Your task to perform on an android device: Open sound settings Image 0: 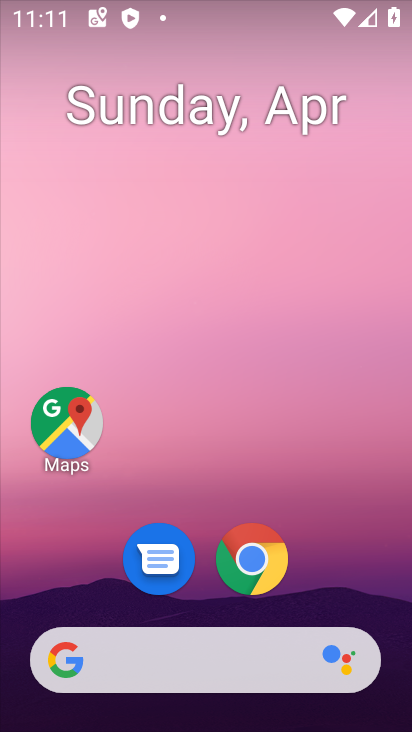
Step 0: drag from (347, 500) to (293, 41)
Your task to perform on an android device: Open sound settings Image 1: 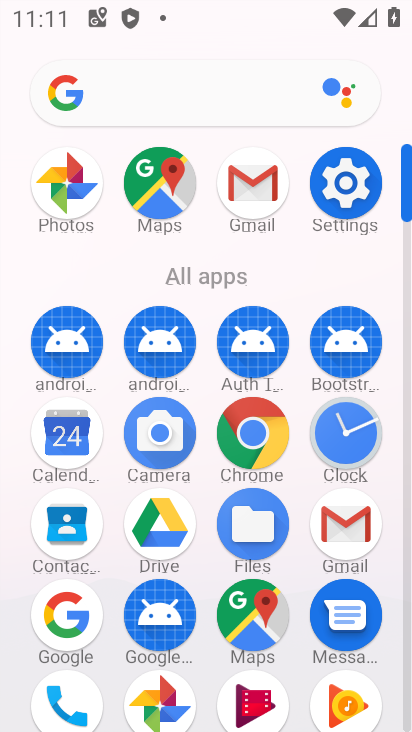
Step 1: click (333, 190)
Your task to perform on an android device: Open sound settings Image 2: 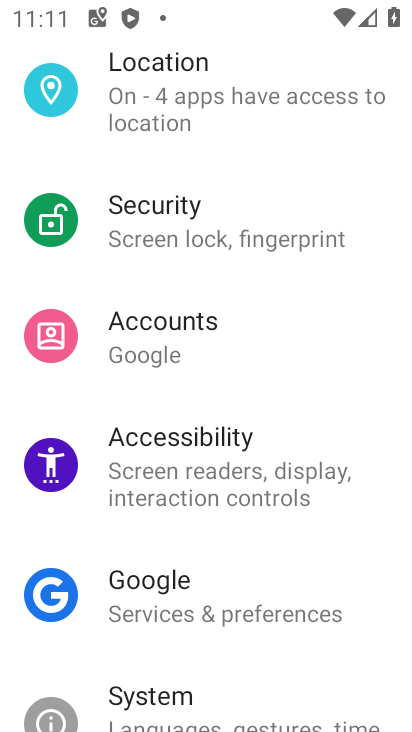
Step 2: drag from (243, 317) to (264, 413)
Your task to perform on an android device: Open sound settings Image 3: 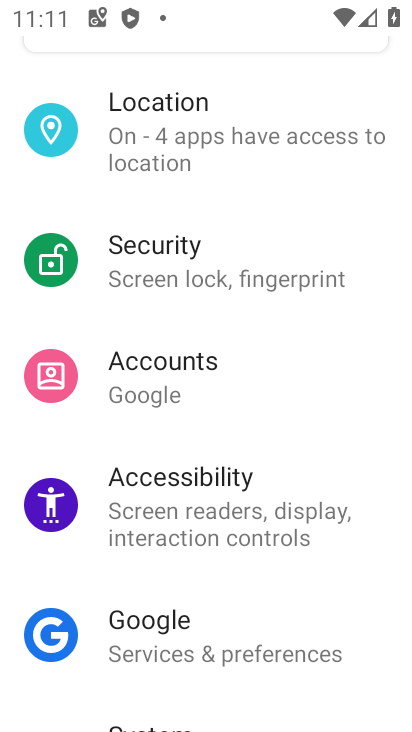
Step 3: drag from (249, 345) to (259, 426)
Your task to perform on an android device: Open sound settings Image 4: 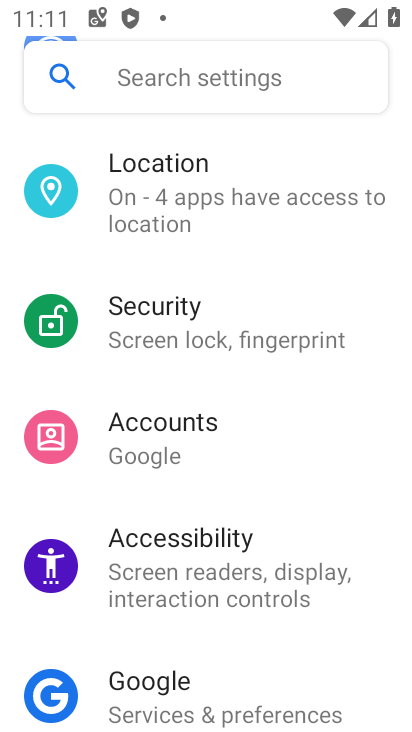
Step 4: drag from (241, 359) to (270, 430)
Your task to perform on an android device: Open sound settings Image 5: 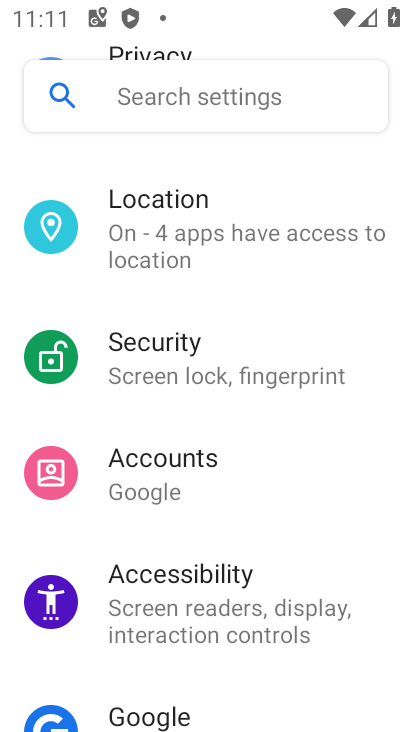
Step 5: drag from (248, 363) to (264, 428)
Your task to perform on an android device: Open sound settings Image 6: 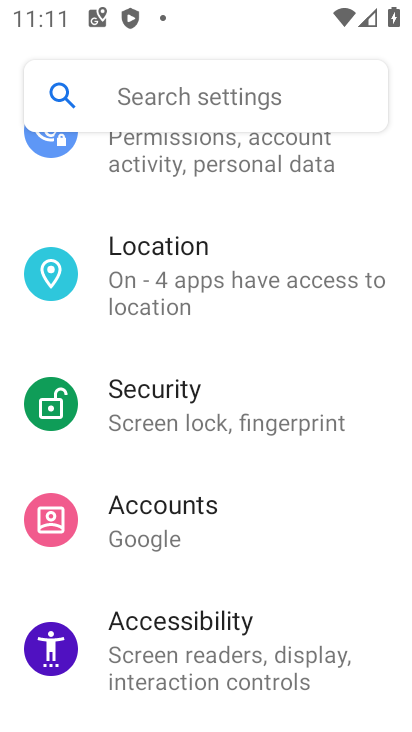
Step 6: drag from (245, 368) to (258, 426)
Your task to perform on an android device: Open sound settings Image 7: 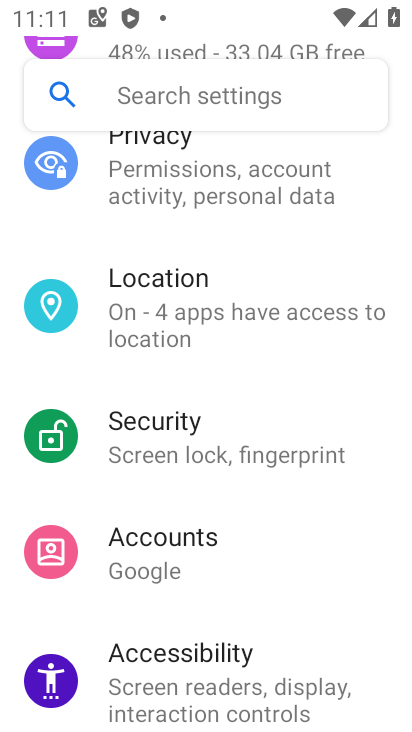
Step 7: drag from (230, 348) to (244, 421)
Your task to perform on an android device: Open sound settings Image 8: 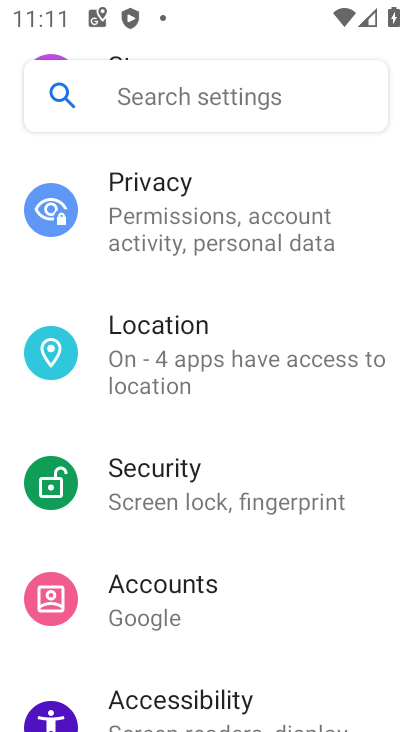
Step 8: drag from (226, 376) to (244, 433)
Your task to perform on an android device: Open sound settings Image 9: 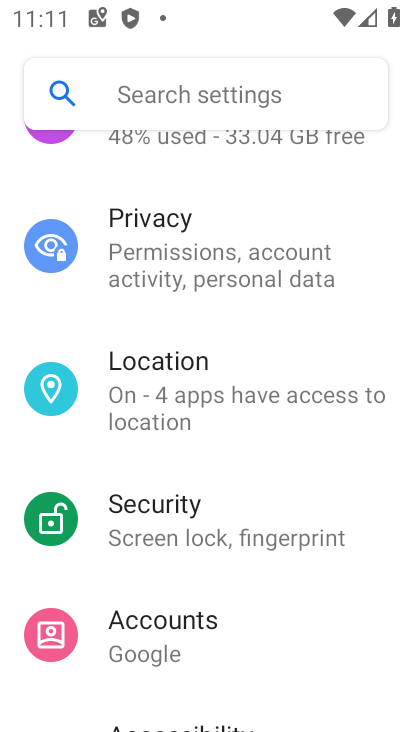
Step 9: drag from (235, 385) to (255, 438)
Your task to perform on an android device: Open sound settings Image 10: 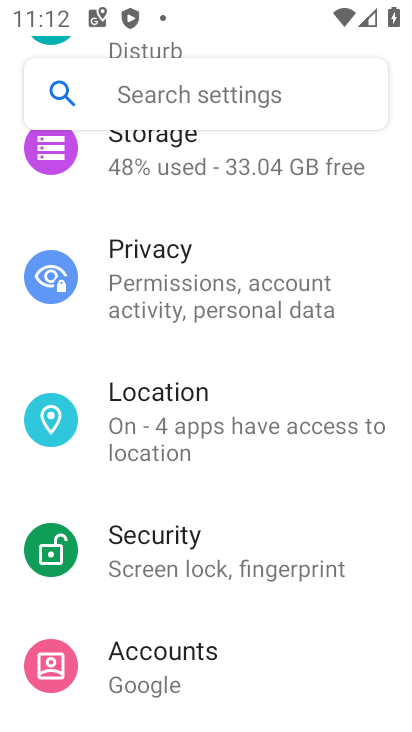
Step 10: drag from (243, 359) to (271, 449)
Your task to perform on an android device: Open sound settings Image 11: 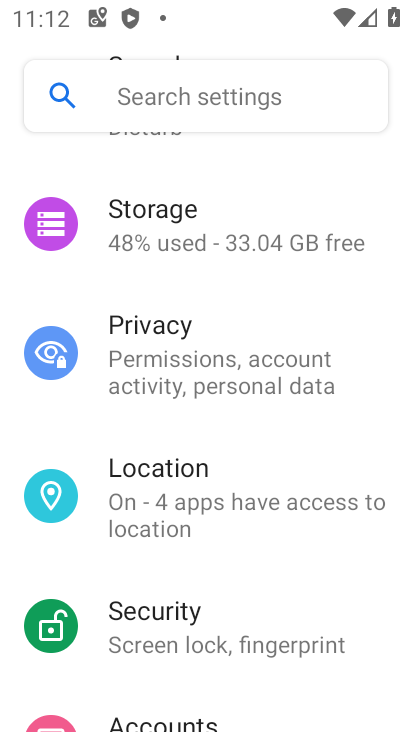
Step 11: drag from (258, 394) to (276, 456)
Your task to perform on an android device: Open sound settings Image 12: 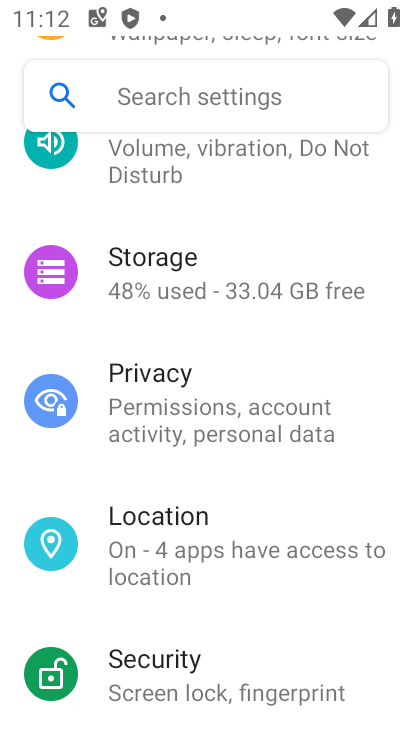
Step 12: drag from (232, 363) to (246, 448)
Your task to perform on an android device: Open sound settings Image 13: 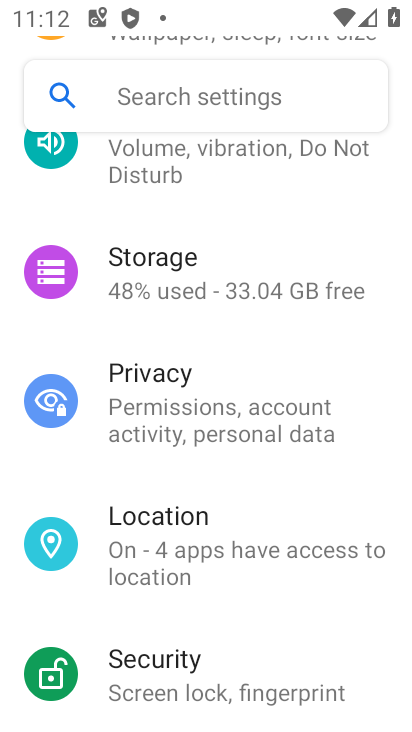
Step 13: drag from (226, 345) to (242, 464)
Your task to perform on an android device: Open sound settings Image 14: 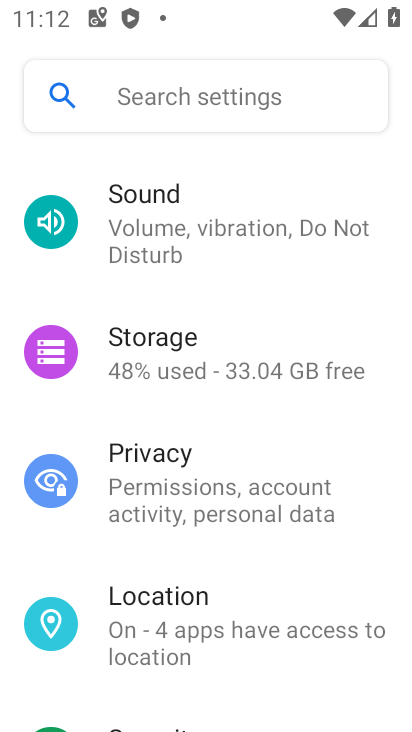
Step 14: click (203, 215)
Your task to perform on an android device: Open sound settings Image 15: 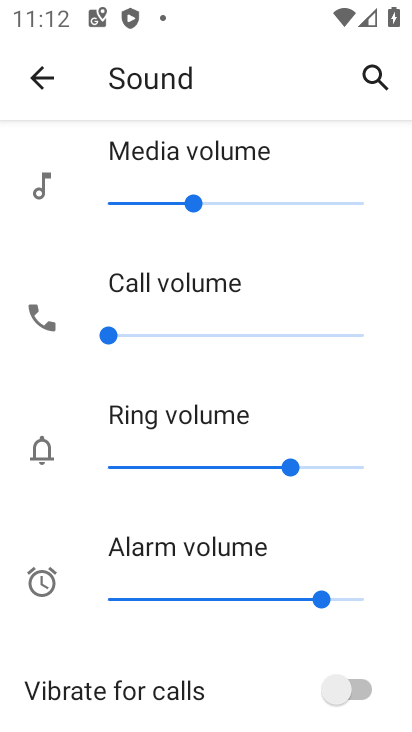
Step 15: task complete